Your task to perform on an android device: Open the stopwatch Image 0: 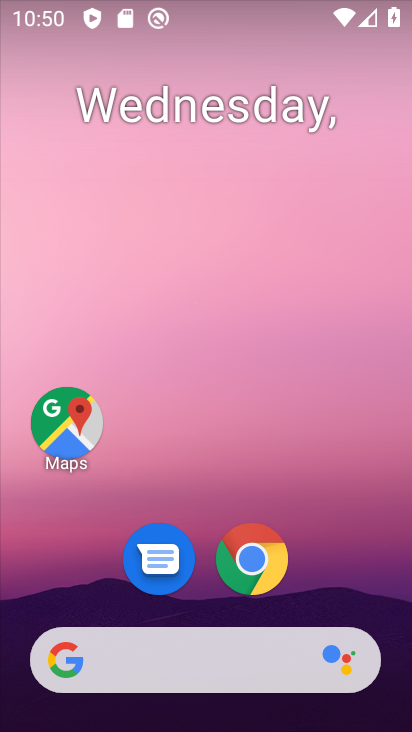
Step 0: drag from (372, 556) to (321, 9)
Your task to perform on an android device: Open the stopwatch Image 1: 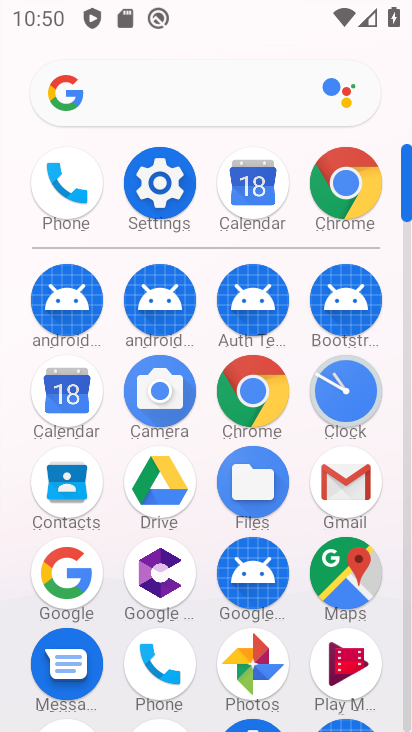
Step 1: click (357, 381)
Your task to perform on an android device: Open the stopwatch Image 2: 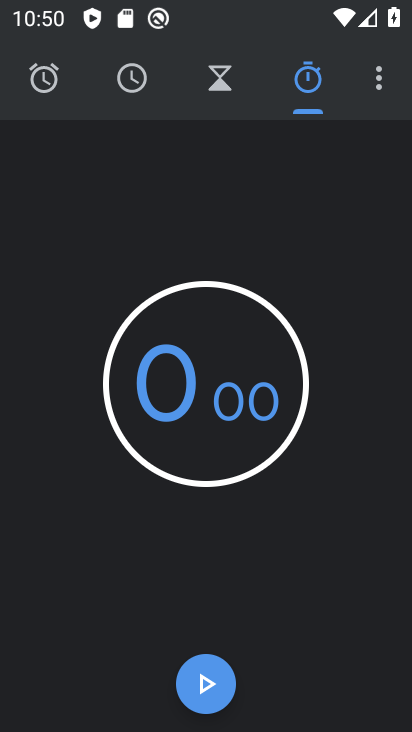
Step 2: task complete